Your task to perform on an android device: Search for sony triple a on amazon, select the first entry, add it to the cart, then select checkout. Image 0: 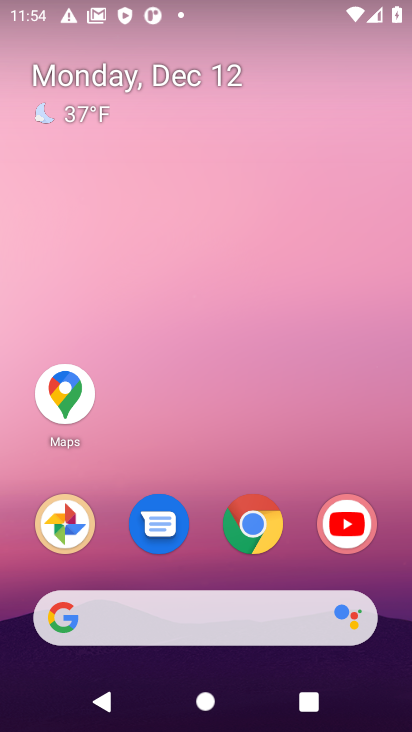
Step 0: click (255, 522)
Your task to perform on an android device: Search for sony triple a on amazon, select the first entry, add it to the cart, then select checkout. Image 1: 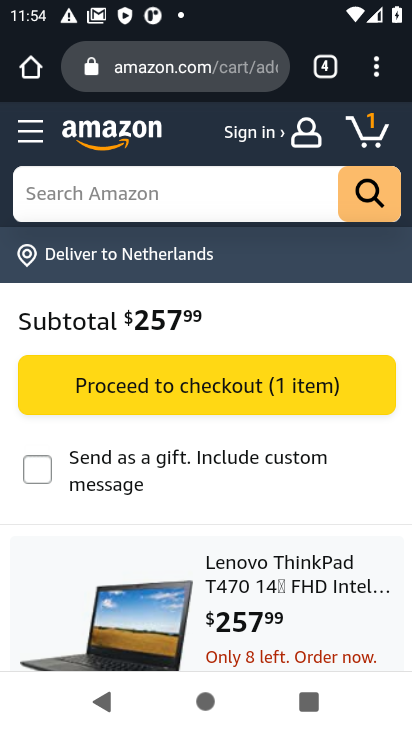
Step 1: click (129, 197)
Your task to perform on an android device: Search for sony triple a on amazon, select the first entry, add it to the cart, then select checkout. Image 2: 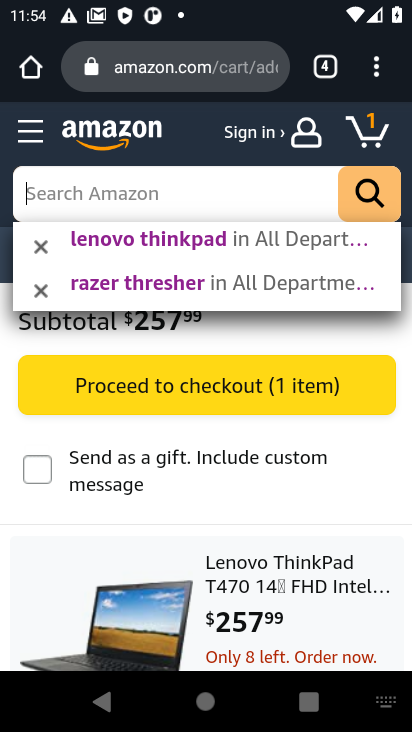
Step 2: type "sony triple a"
Your task to perform on an android device: Search for sony triple a on amazon, select the first entry, add it to the cart, then select checkout. Image 3: 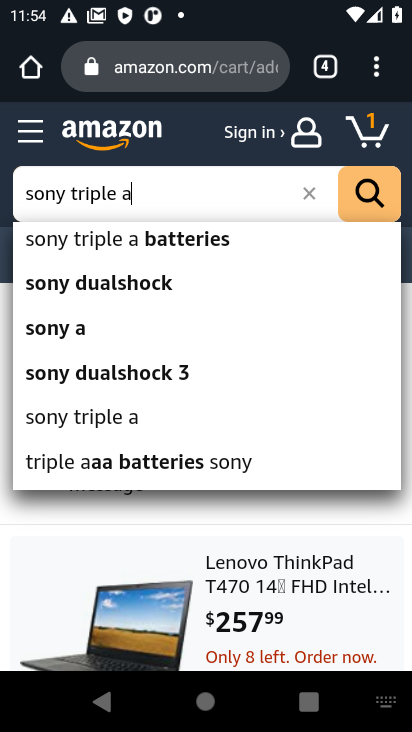
Step 3: click (122, 247)
Your task to perform on an android device: Search for sony triple a on amazon, select the first entry, add it to the cart, then select checkout. Image 4: 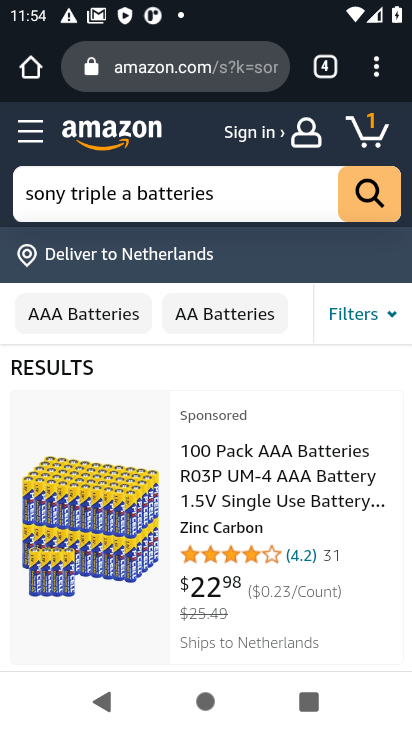
Step 4: drag from (172, 528) to (180, 414)
Your task to perform on an android device: Search for sony triple a on amazon, select the first entry, add it to the cart, then select checkout. Image 5: 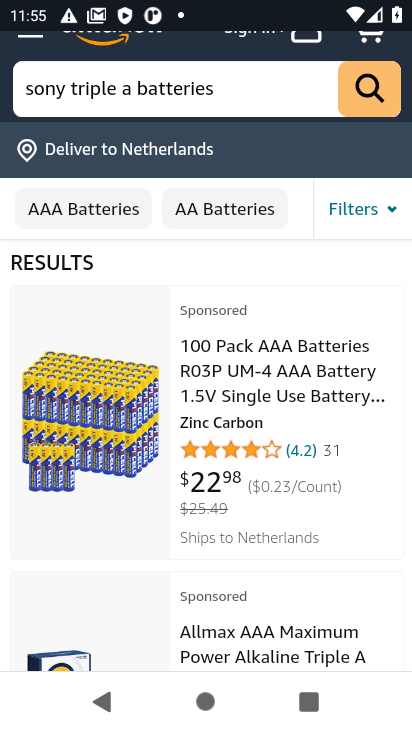
Step 5: click (303, 386)
Your task to perform on an android device: Search for sony triple a on amazon, select the first entry, add it to the cart, then select checkout. Image 6: 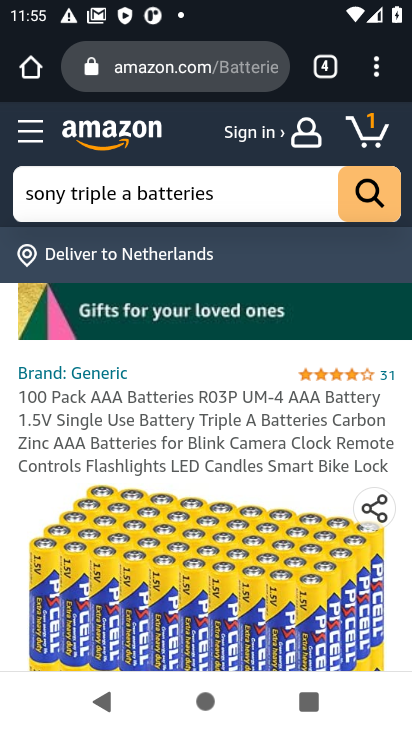
Step 6: task complete